Your task to perform on an android device: Open privacy settings Image 0: 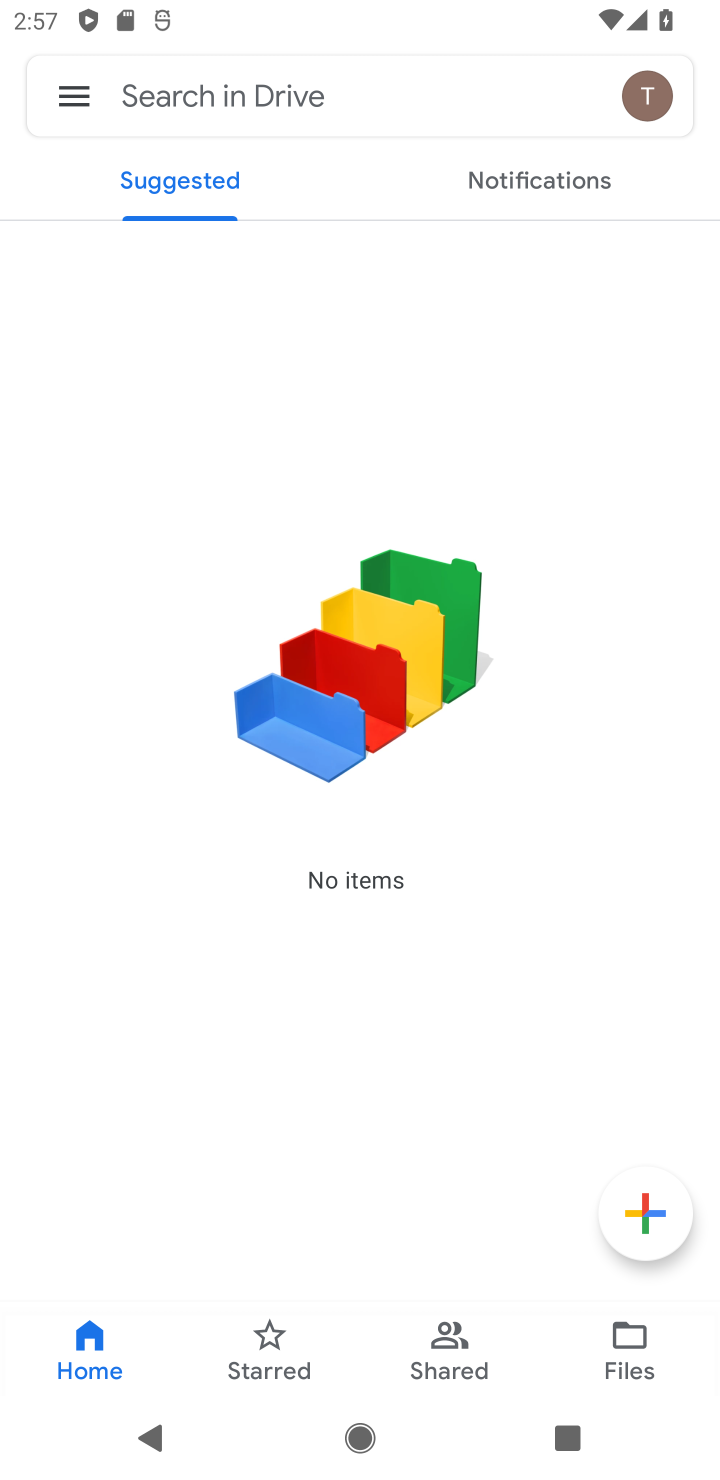
Step 0: press back button
Your task to perform on an android device: Open privacy settings Image 1: 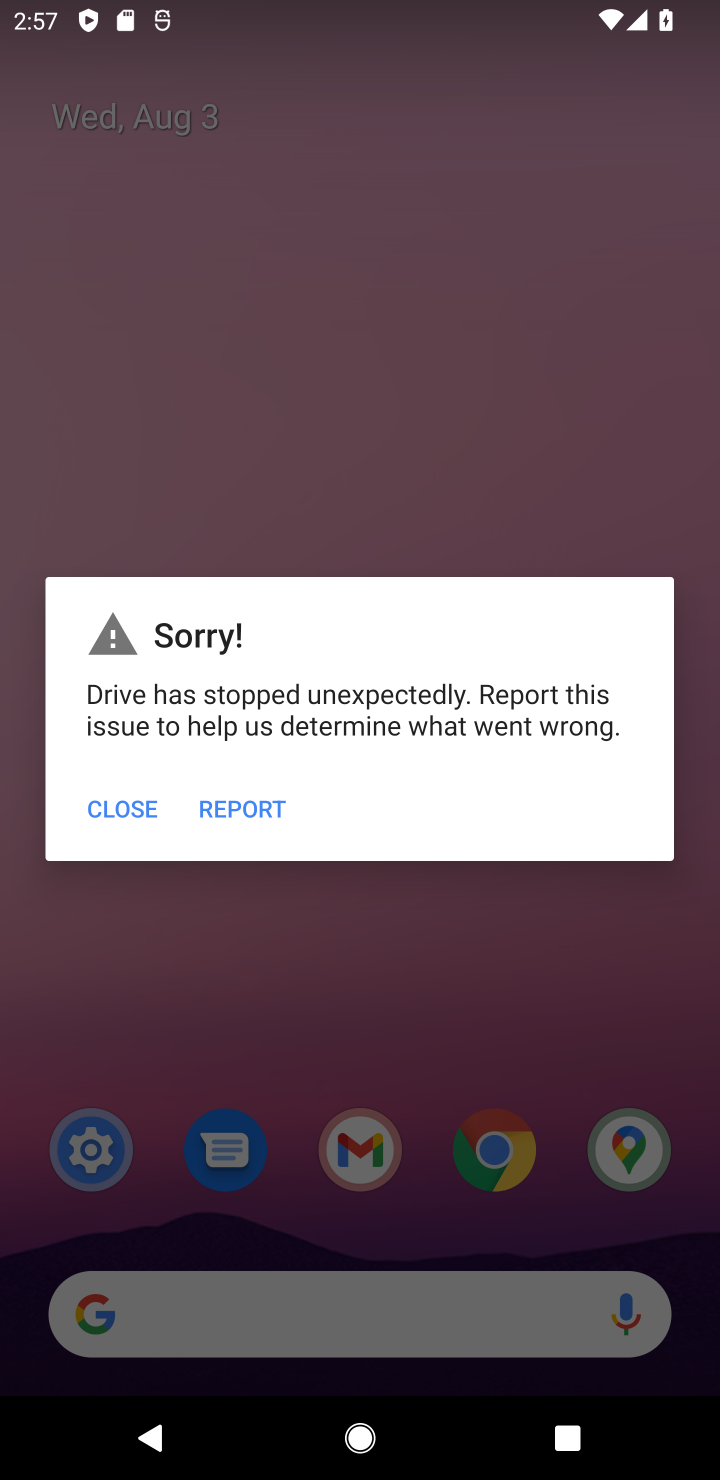
Step 1: press back button
Your task to perform on an android device: Open privacy settings Image 2: 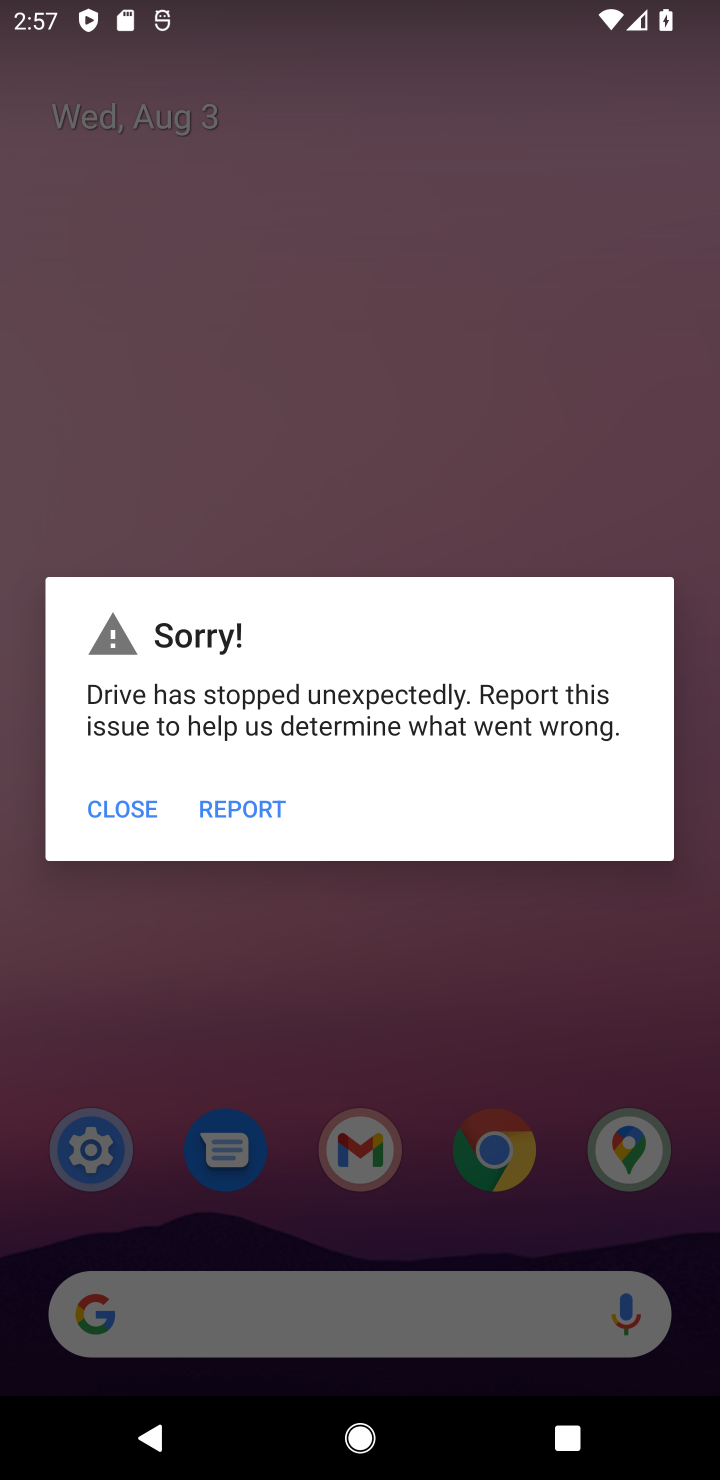
Step 2: press back button
Your task to perform on an android device: Open privacy settings Image 3: 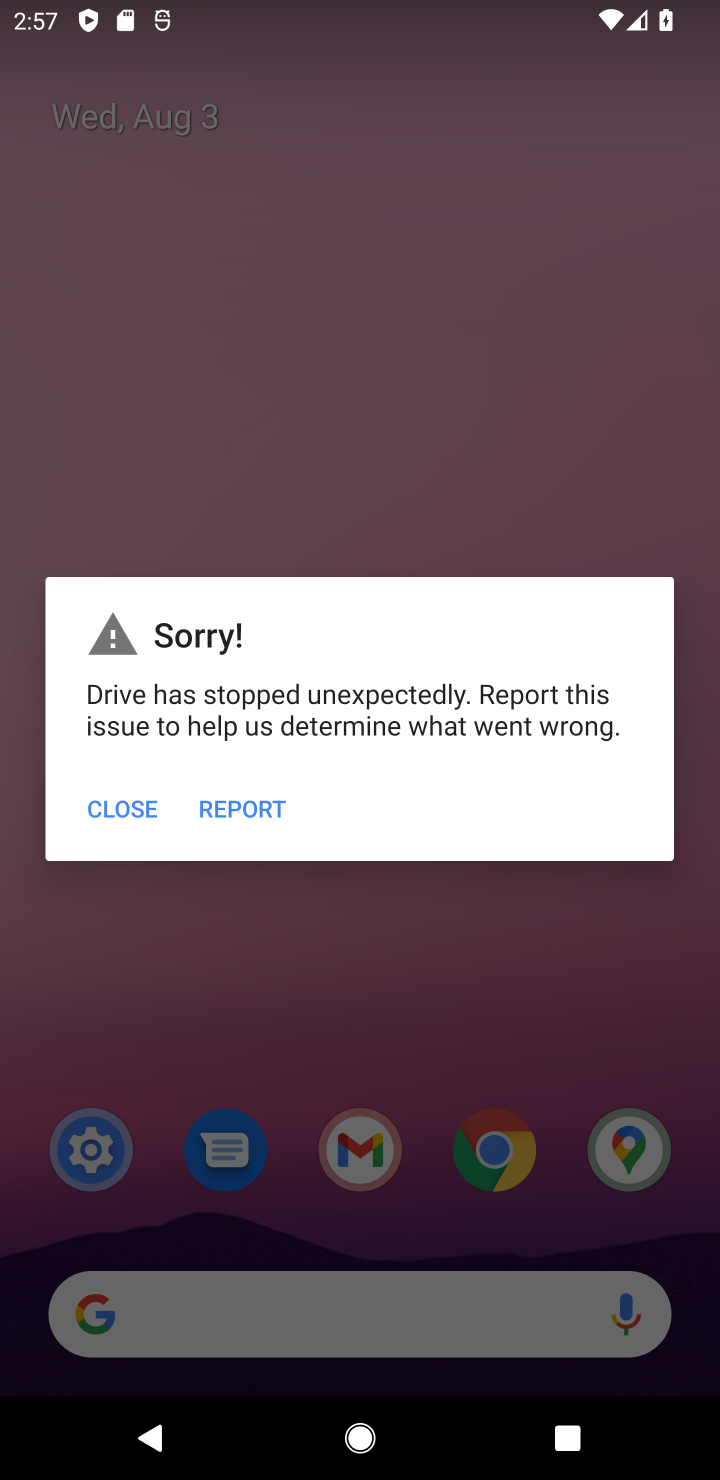
Step 3: click (76, 808)
Your task to perform on an android device: Open privacy settings Image 4: 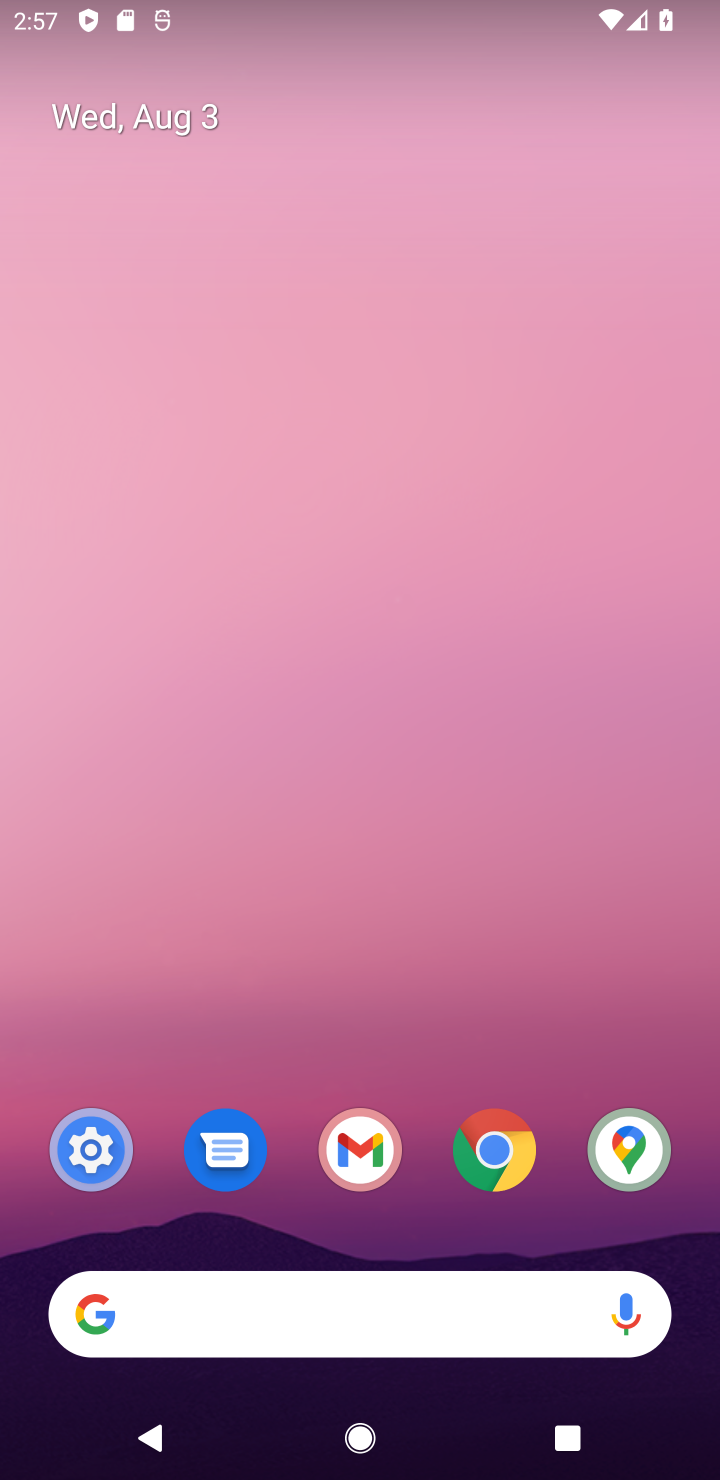
Step 4: drag from (268, 1027) to (247, 99)
Your task to perform on an android device: Open privacy settings Image 5: 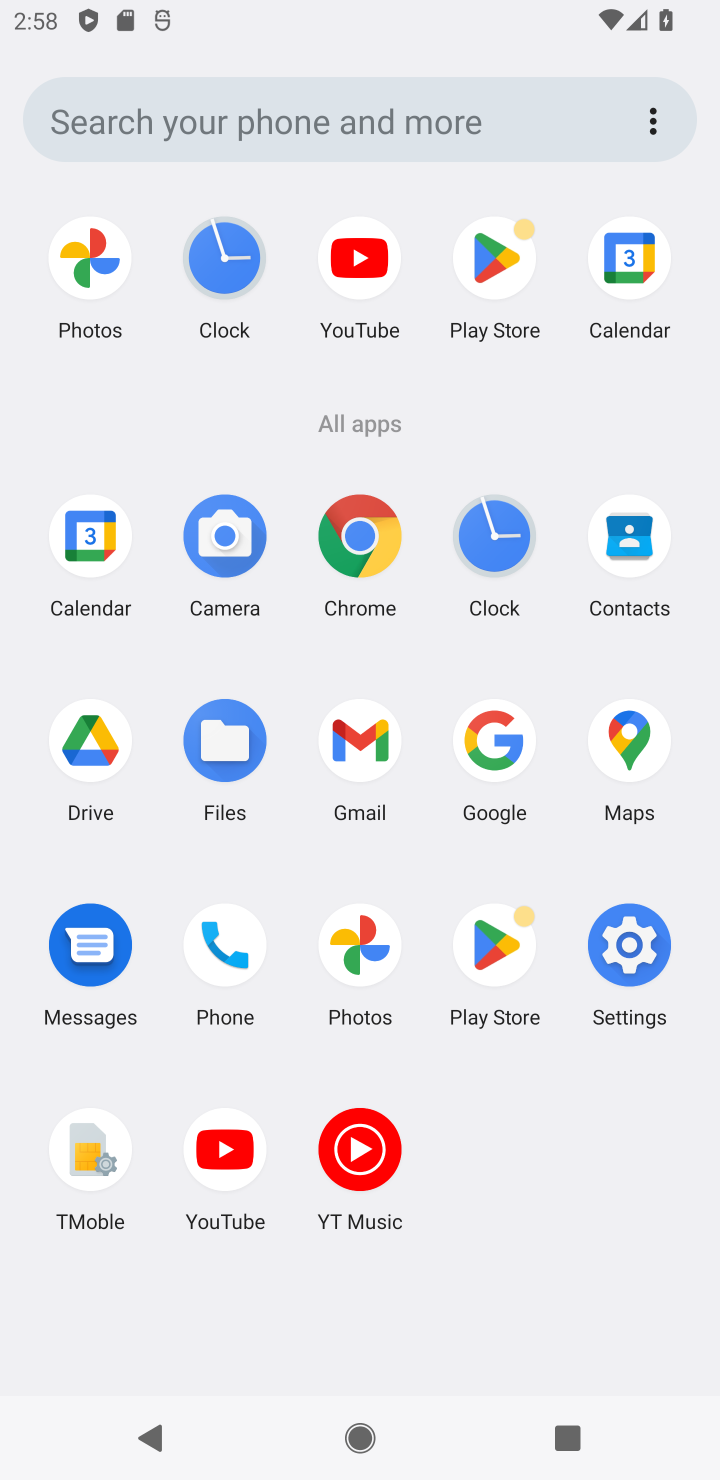
Step 5: click (649, 931)
Your task to perform on an android device: Open privacy settings Image 6: 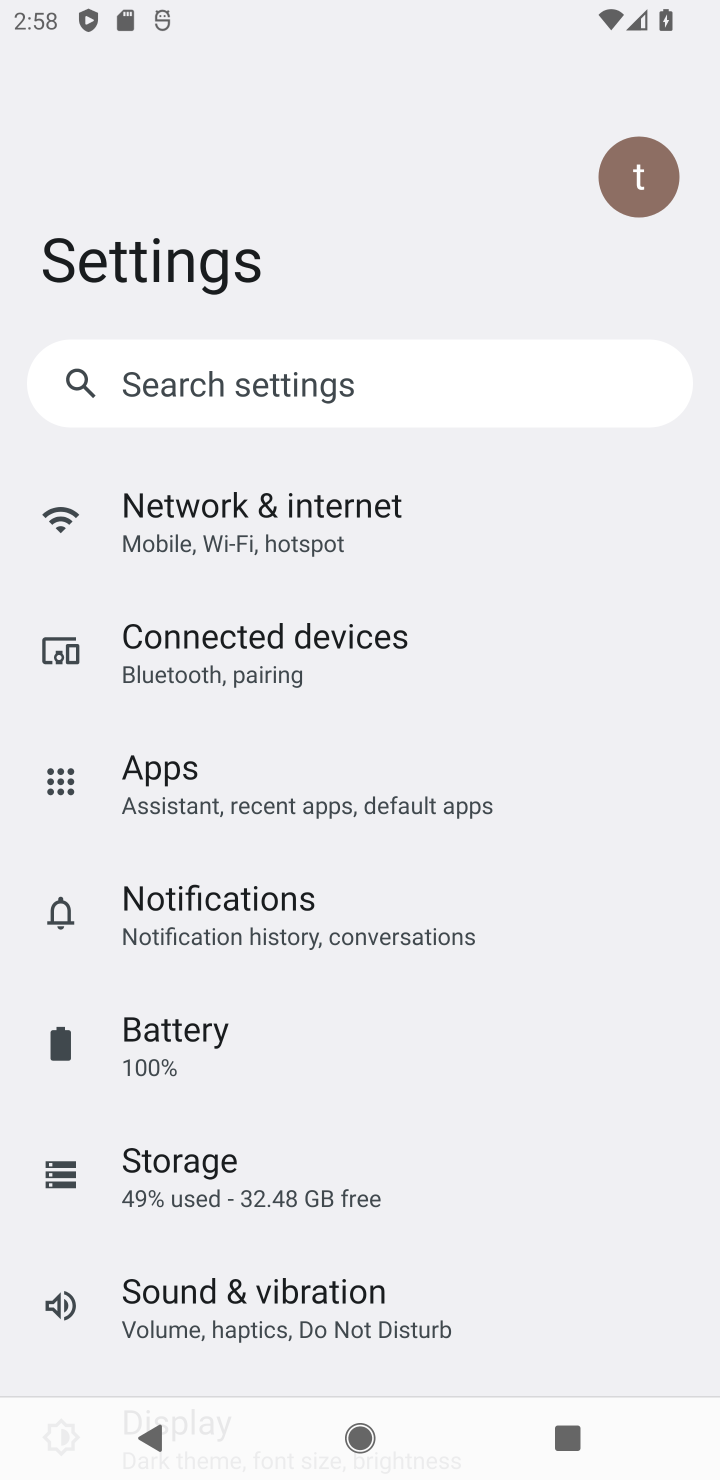
Step 6: drag from (326, 1266) to (403, 511)
Your task to perform on an android device: Open privacy settings Image 7: 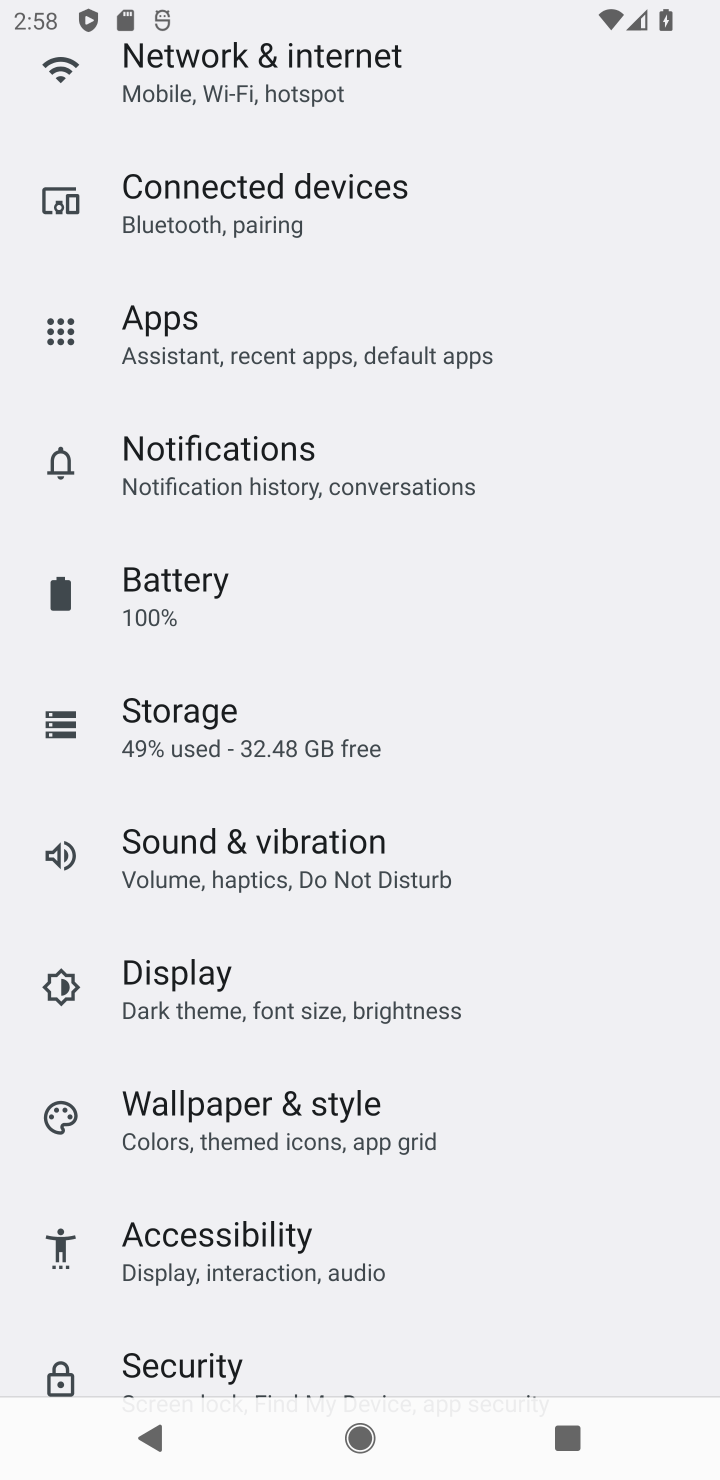
Step 7: drag from (282, 1189) to (266, 277)
Your task to perform on an android device: Open privacy settings Image 8: 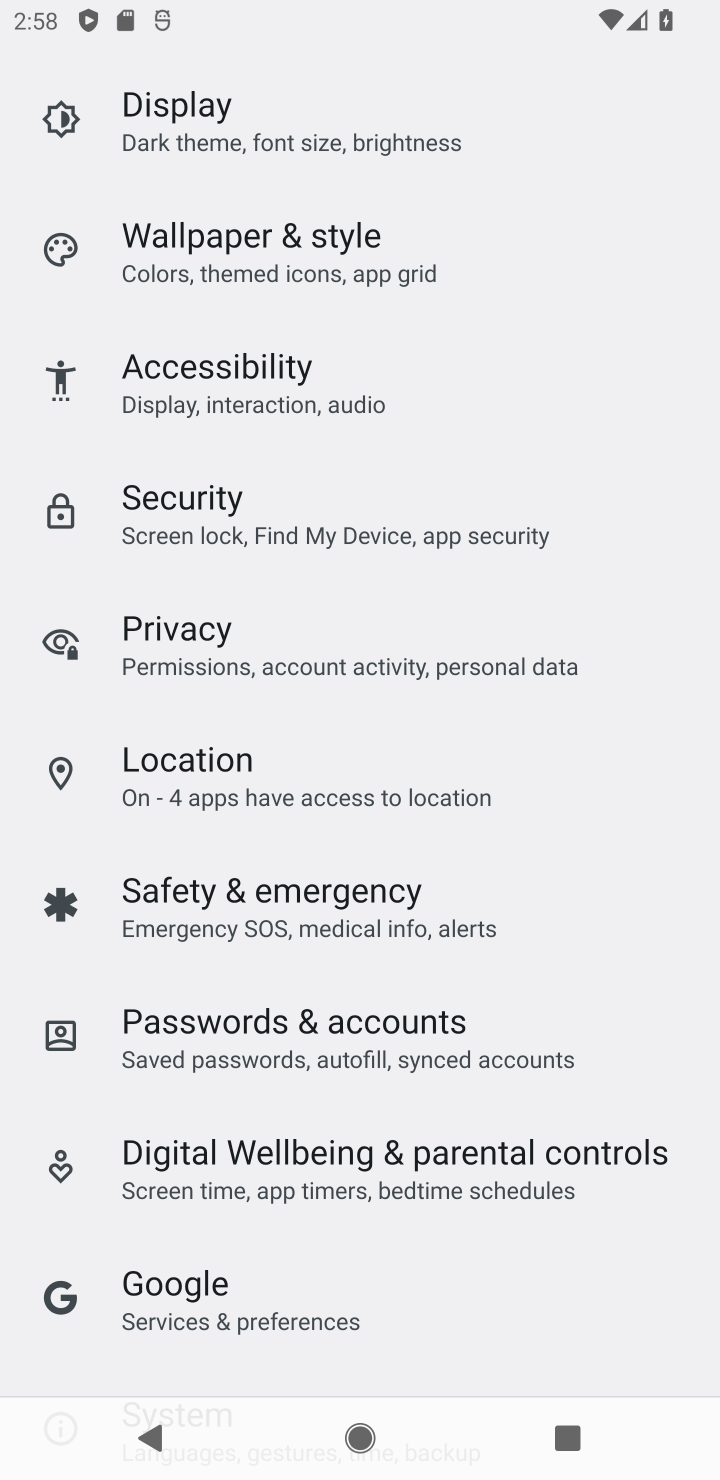
Step 8: click (260, 661)
Your task to perform on an android device: Open privacy settings Image 9: 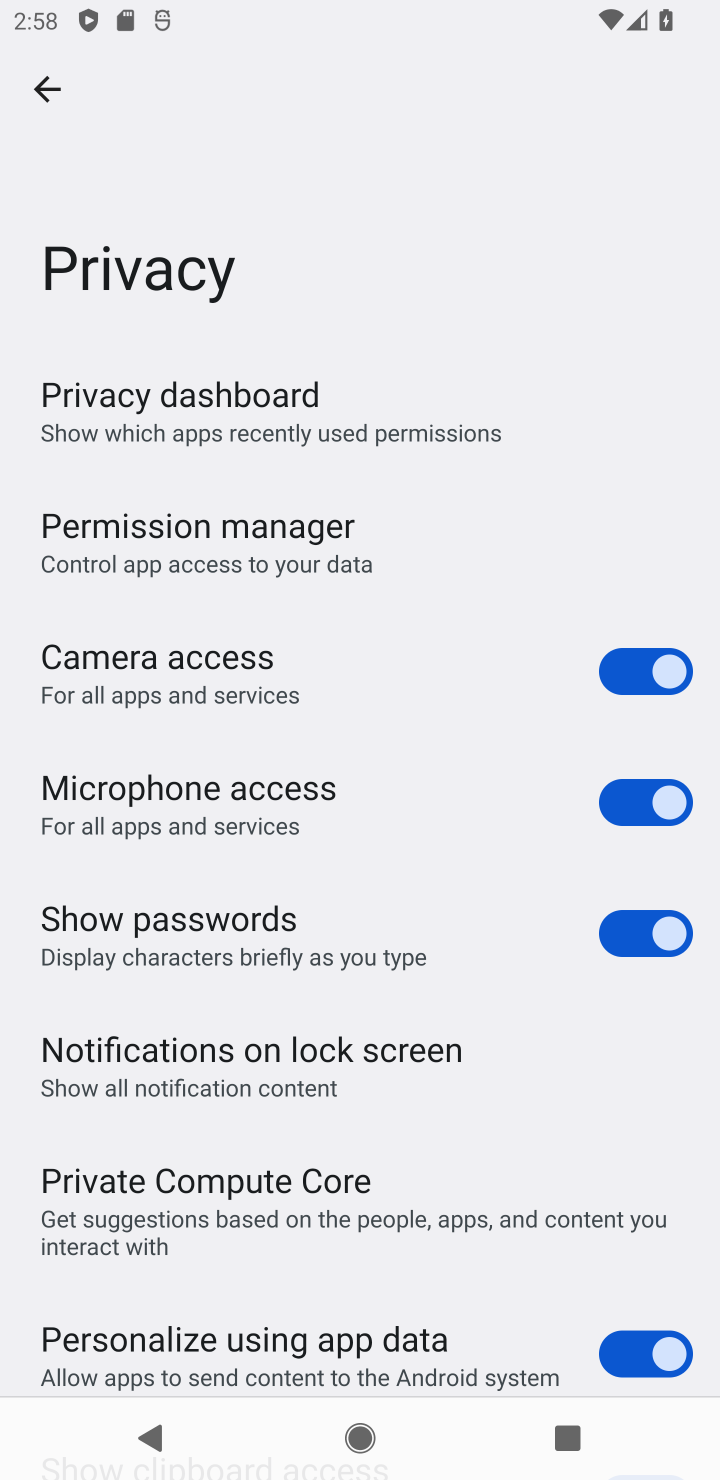
Step 9: task complete